Your task to perform on an android device: toggle pop-ups in chrome Image 0: 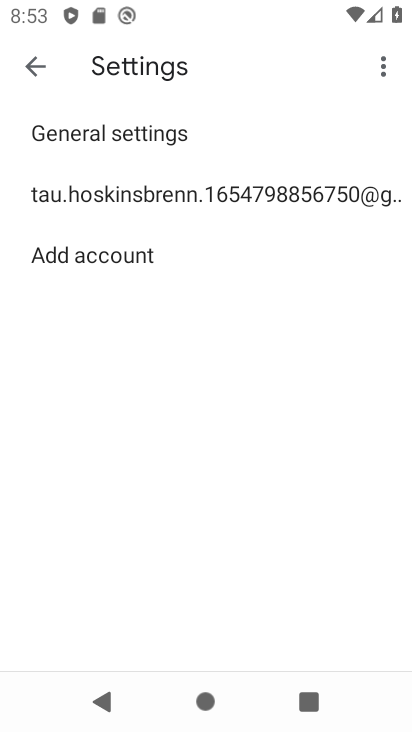
Step 0: press home button
Your task to perform on an android device: toggle pop-ups in chrome Image 1: 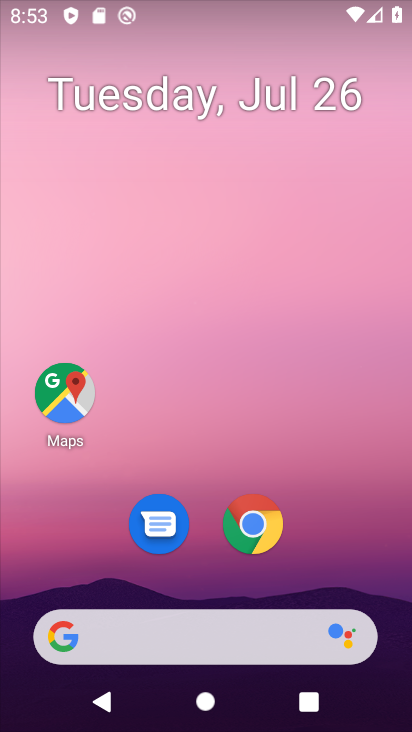
Step 1: click (259, 533)
Your task to perform on an android device: toggle pop-ups in chrome Image 2: 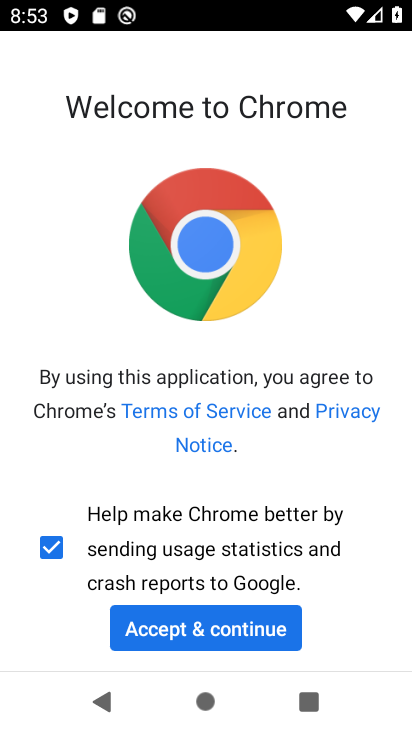
Step 2: click (229, 634)
Your task to perform on an android device: toggle pop-ups in chrome Image 3: 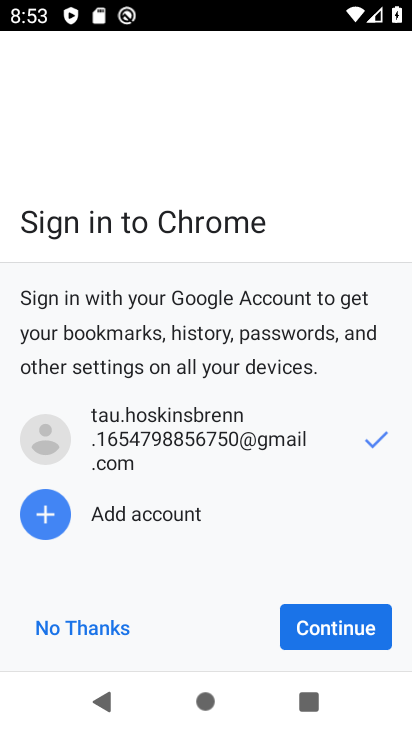
Step 3: click (322, 634)
Your task to perform on an android device: toggle pop-ups in chrome Image 4: 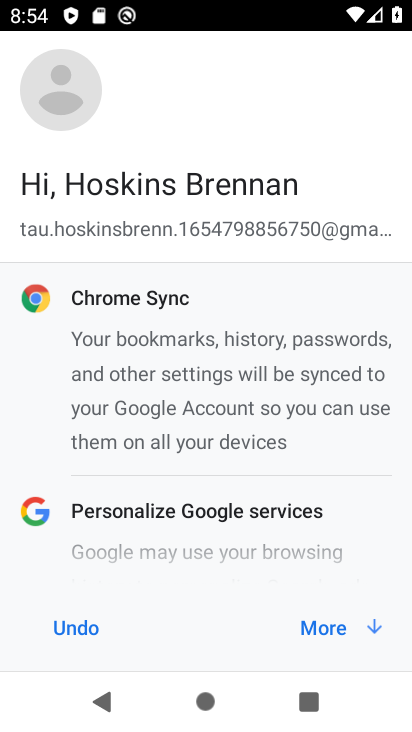
Step 4: click (322, 632)
Your task to perform on an android device: toggle pop-ups in chrome Image 5: 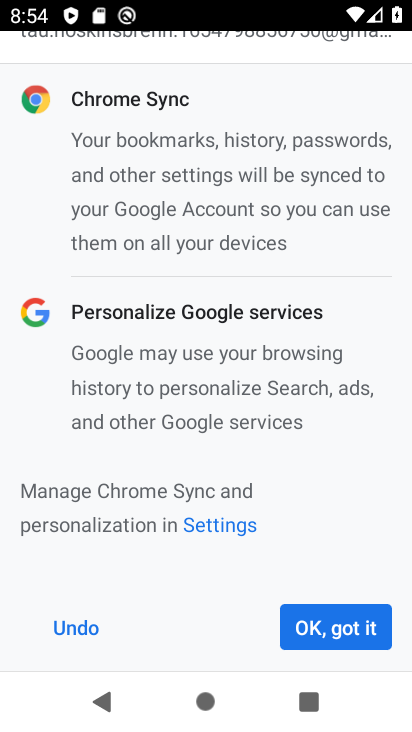
Step 5: click (324, 636)
Your task to perform on an android device: toggle pop-ups in chrome Image 6: 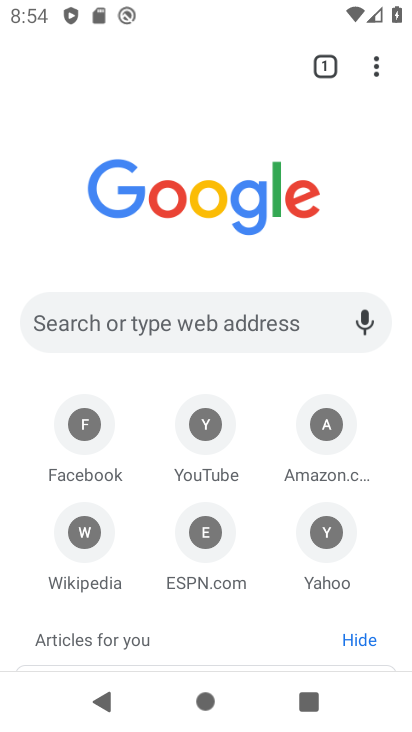
Step 6: drag from (377, 65) to (223, 548)
Your task to perform on an android device: toggle pop-ups in chrome Image 7: 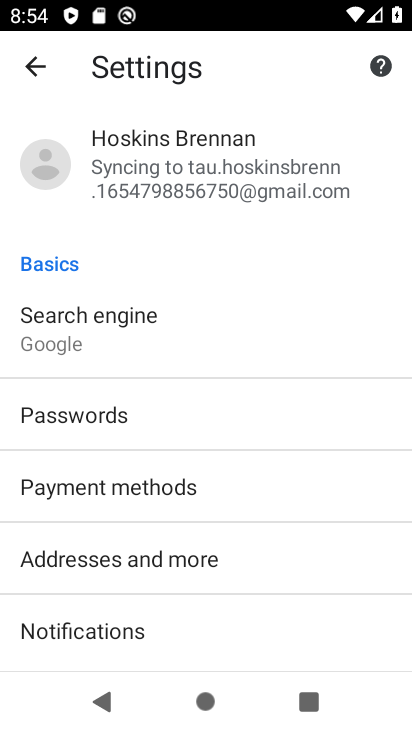
Step 7: drag from (174, 599) to (357, 239)
Your task to perform on an android device: toggle pop-ups in chrome Image 8: 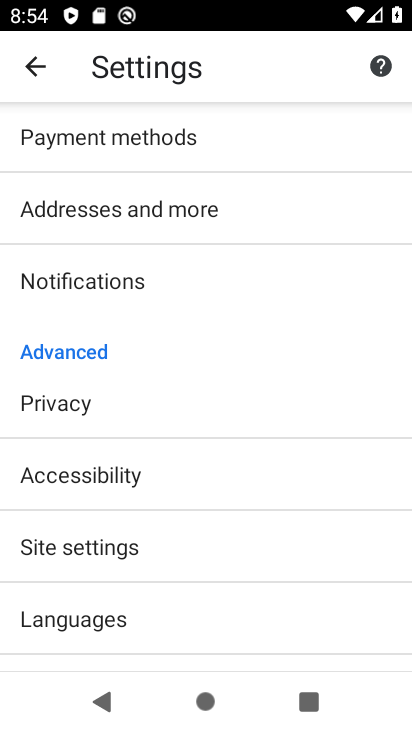
Step 8: drag from (164, 595) to (311, 295)
Your task to perform on an android device: toggle pop-ups in chrome Image 9: 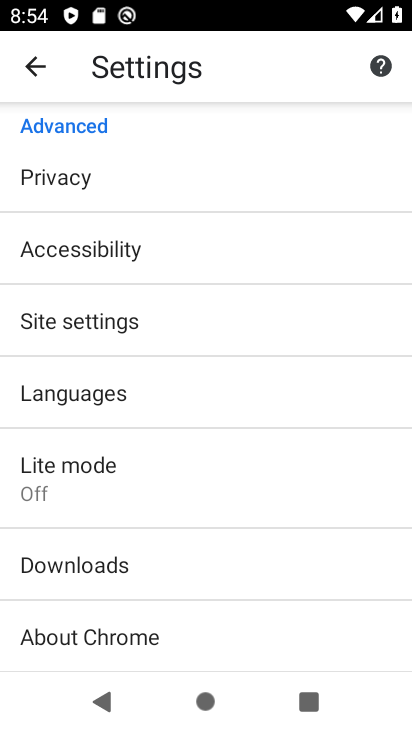
Step 9: click (122, 330)
Your task to perform on an android device: toggle pop-ups in chrome Image 10: 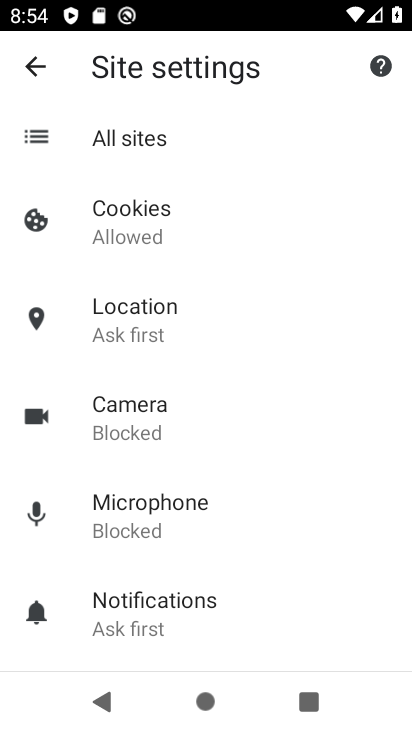
Step 10: drag from (259, 523) to (378, 173)
Your task to perform on an android device: toggle pop-ups in chrome Image 11: 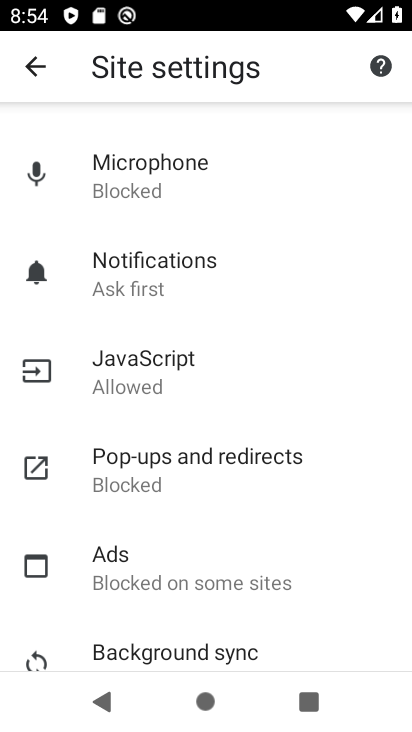
Step 11: click (201, 461)
Your task to perform on an android device: toggle pop-ups in chrome Image 12: 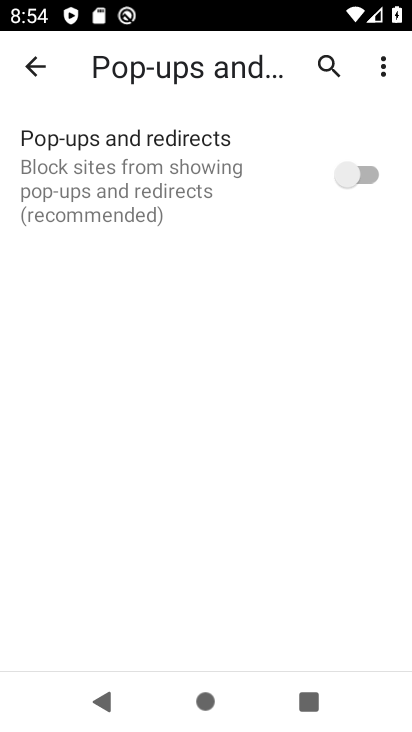
Step 12: click (367, 170)
Your task to perform on an android device: toggle pop-ups in chrome Image 13: 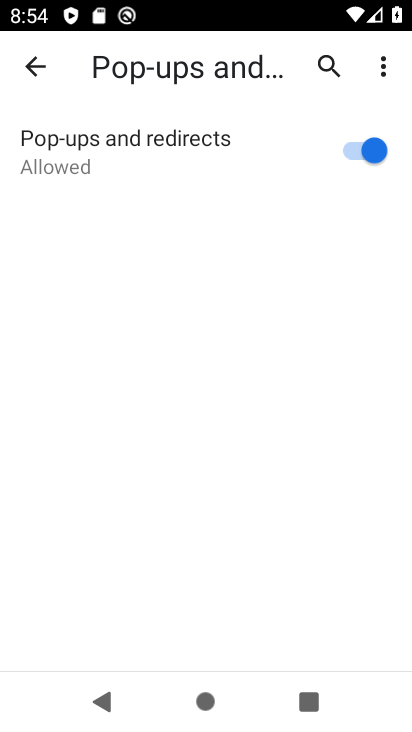
Step 13: task complete